Your task to perform on an android device: Search for seafood restaurants on Google Maps Image 0: 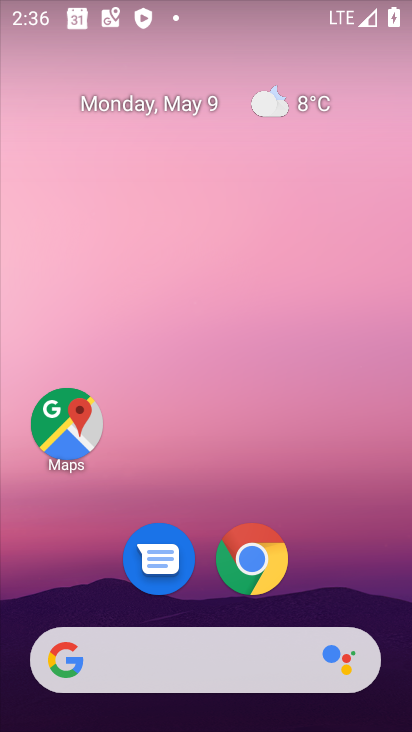
Step 0: click (75, 438)
Your task to perform on an android device: Search for seafood restaurants on Google Maps Image 1: 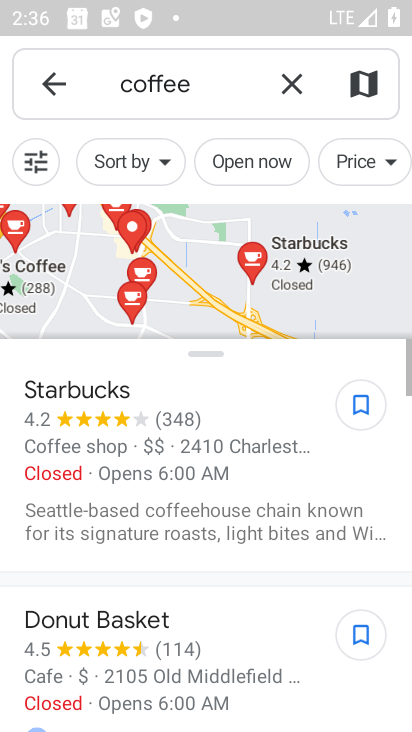
Step 1: click (288, 84)
Your task to perform on an android device: Search for seafood restaurants on Google Maps Image 2: 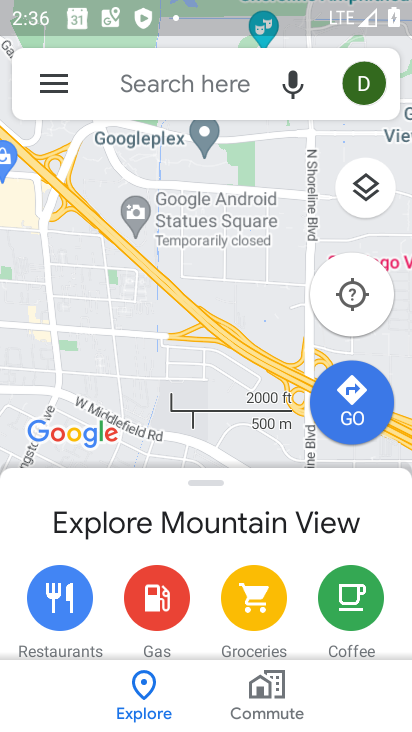
Step 2: click (192, 84)
Your task to perform on an android device: Search for seafood restaurants on Google Maps Image 3: 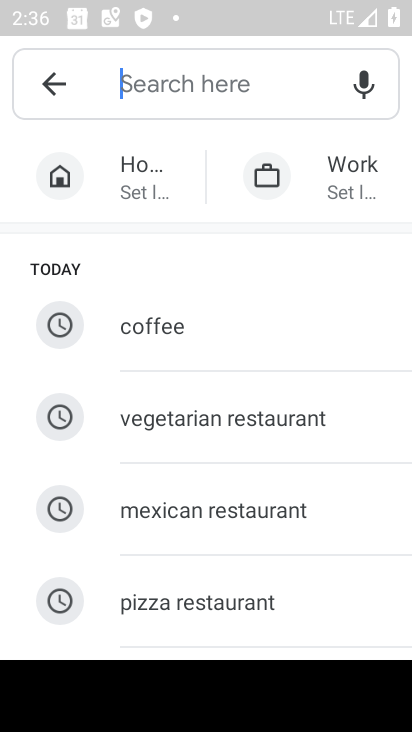
Step 3: type "seafood restaurants"
Your task to perform on an android device: Search for seafood restaurants on Google Maps Image 4: 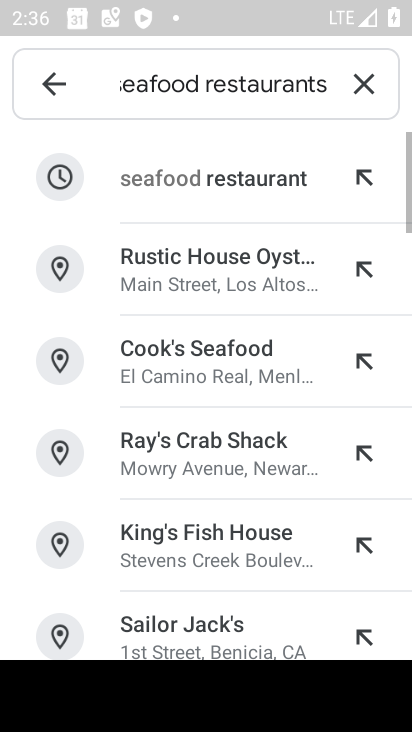
Step 4: click (192, 190)
Your task to perform on an android device: Search for seafood restaurants on Google Maps Image 5: 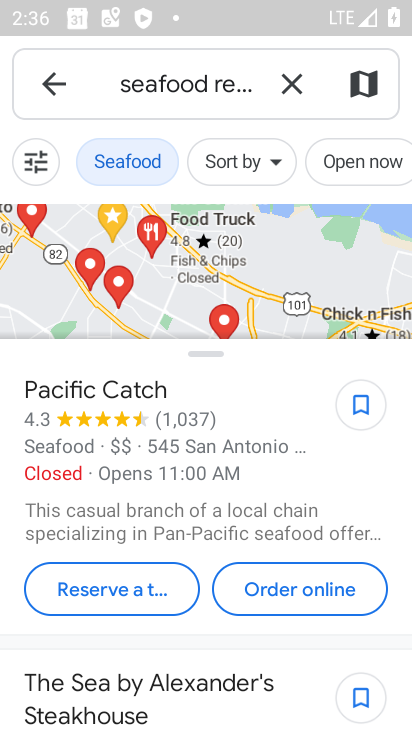
Step 5: task complete